Your task to perform on an android device: open sync settings in chrome Image 0: 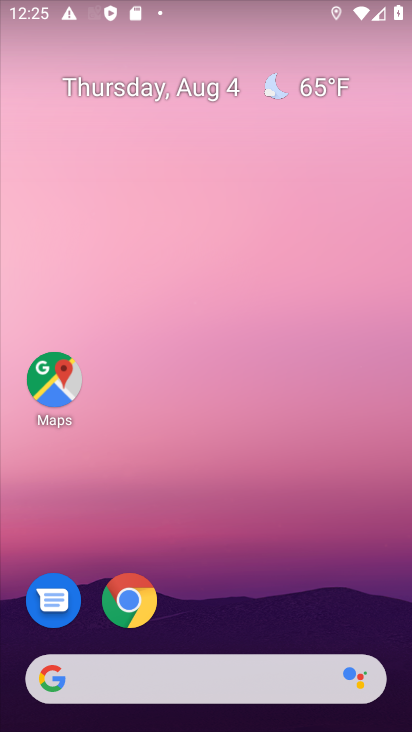
Step 0: click (122, 601)
Your task to perform on an android device: open sync settings in chrome Image 1: 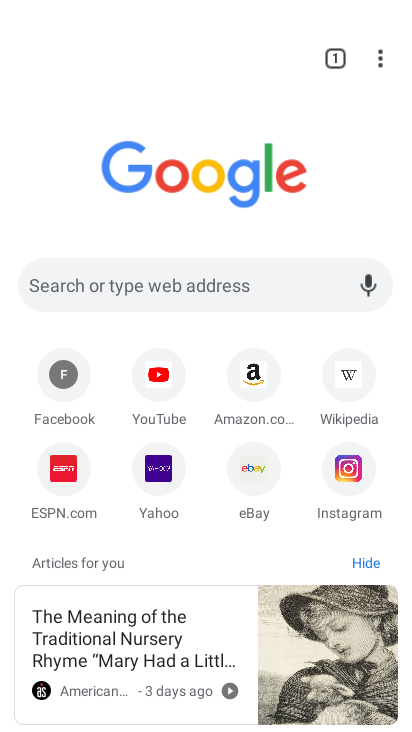
Step 1: click (386, 56)
Your task to perform on an android device: open sync settings in chrome Image 2: 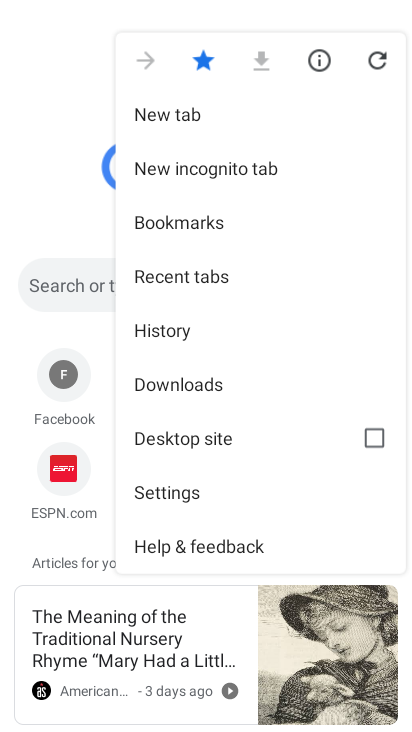
Step 2: click (184, 499)
Your task to perform on an android device: open sync settings in chrome Image 3: 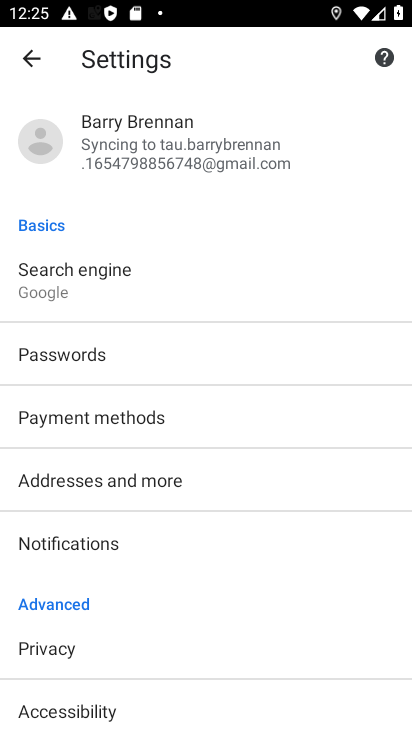
Step 3: click (132, 162)
Your task to perform on an android device: open sync settings in chrome Image 4: 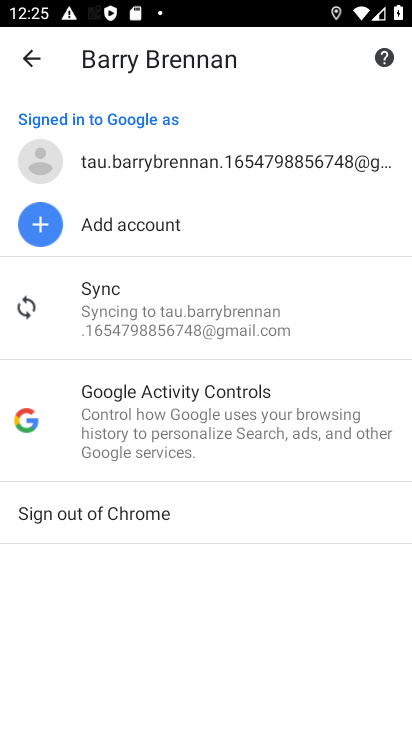
Step 4: click (122, 336)
Your task to perform on an android device: open sync settings in chrome Image 5: 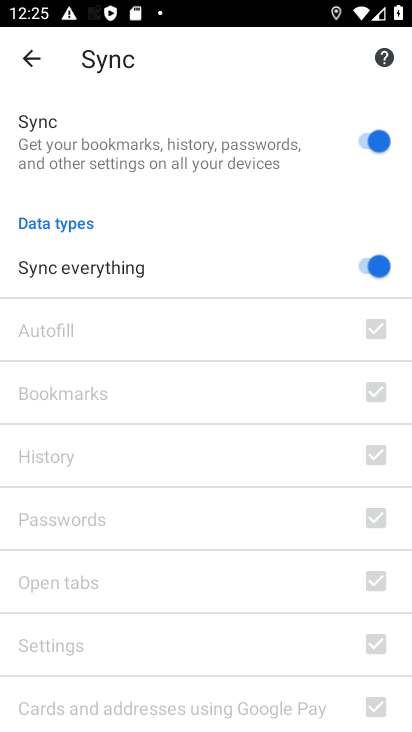
Step 5: task complete